Your task to perform on an android device: What's the weather? Image 0: 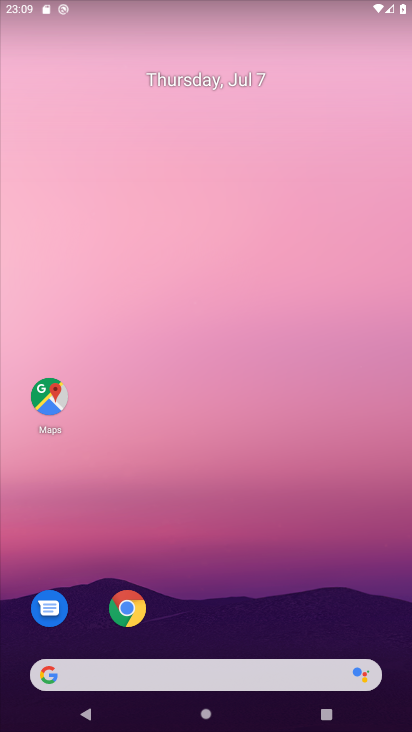
Step 0: drag from (263, 645) to (287, 158)
Your task to perform on an android device: What's the weather? Image 1: 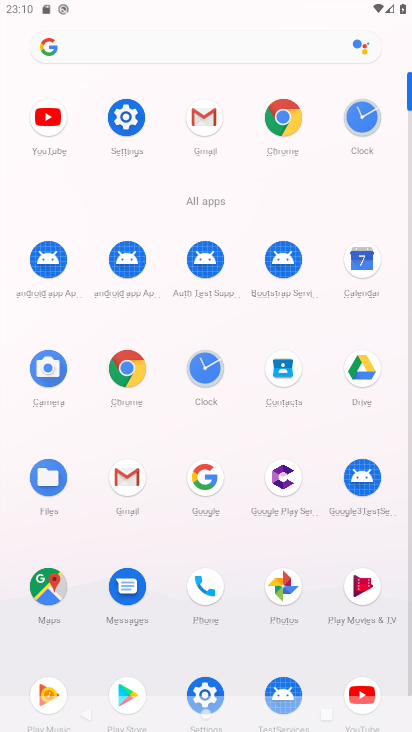
Step 1: click (238, 107)
Your task to perform on an android device: What's the weather? Image 2: 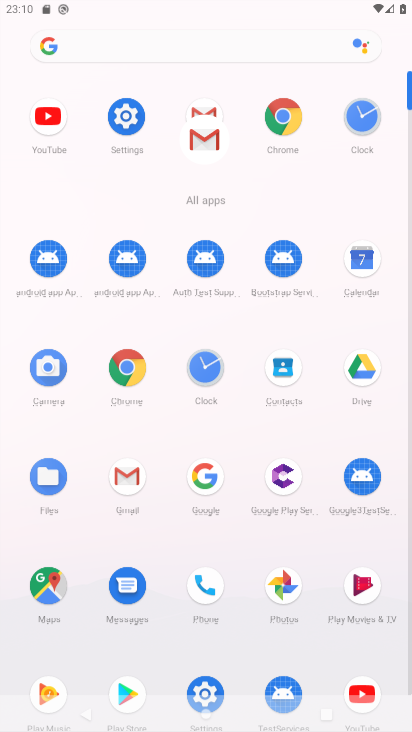
Step 2: click (266, 110)
Your task to perform on an android device: What's the weather? Image 3: 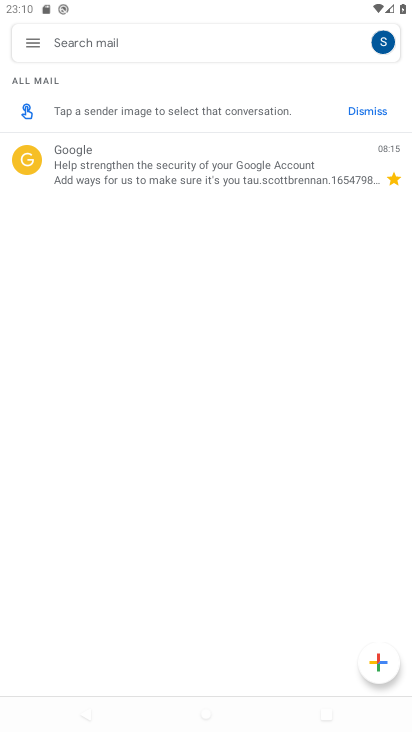
Step 3: press home button
Your task to perform on an android device: What's the weather? Image 4: 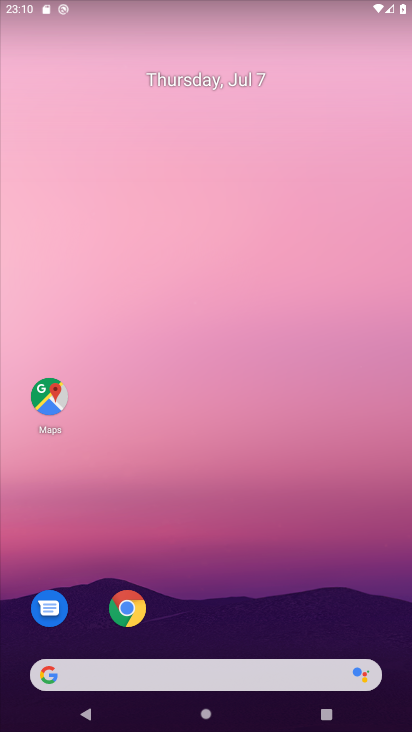
Step 4: click (137, 596)
Your task to perform on an android device: What's the weather? Image 5: 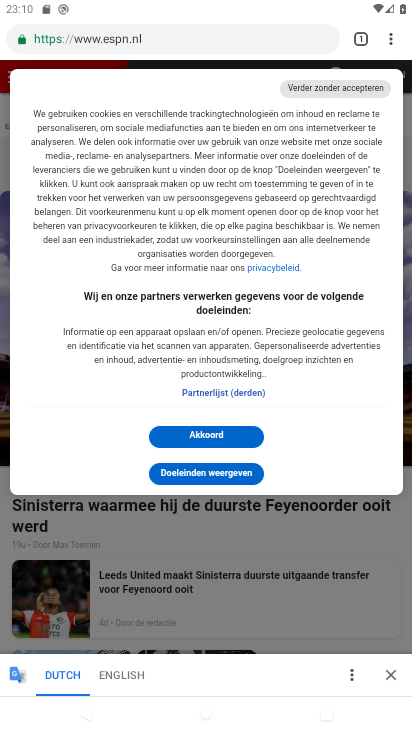
Step 5: click (394, 44)
Your task to perform on an android device: What's the weather? Image 6: 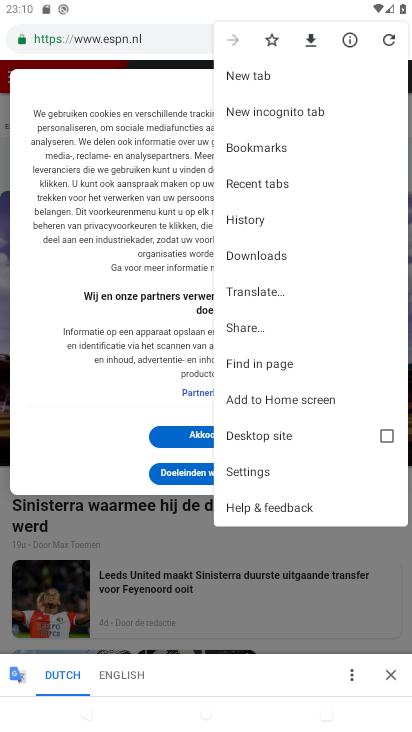
Step 6: click (260, 79)
Your task to perform on an android device: What's the weather? Image 7: 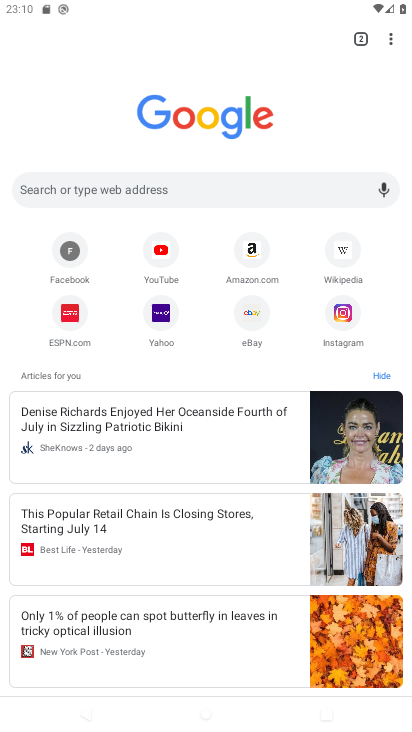
Step 7: click (169, 182)
Your task to perform on an android device: What's the weather? Image 8: 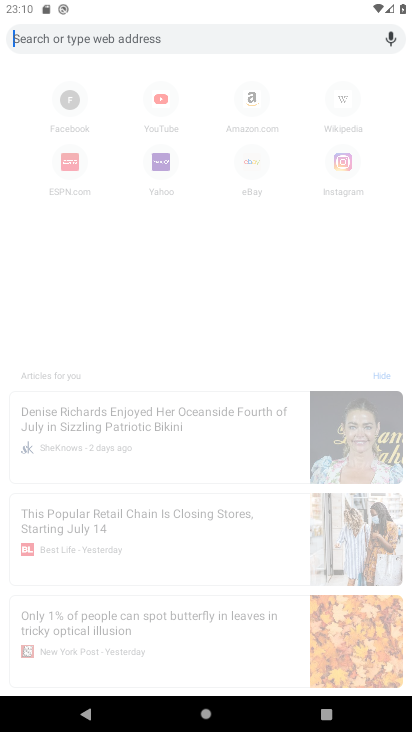
Step 8: type "What's the weather "
Your task to perform on an android device: What's the weather? Image 9: 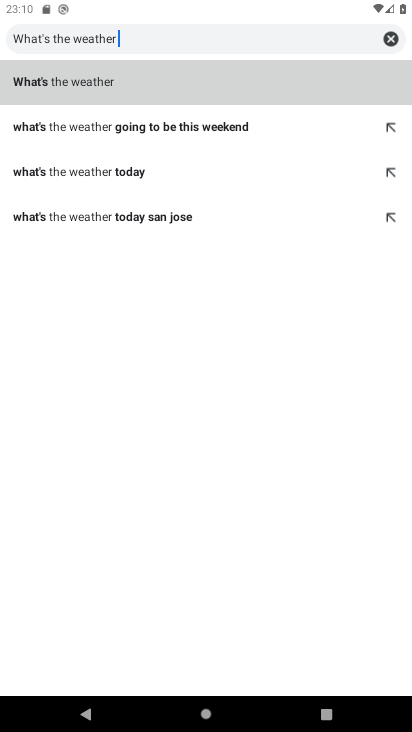
Step 9: click (112, 75)
Your task to perform on an android device: What's the weather? Image 10: 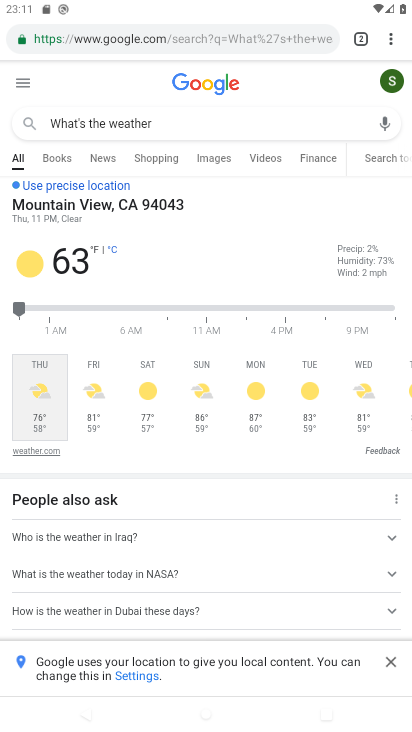
Step 10: task complete